Your task to perform on an android device: add a contact Image 0: 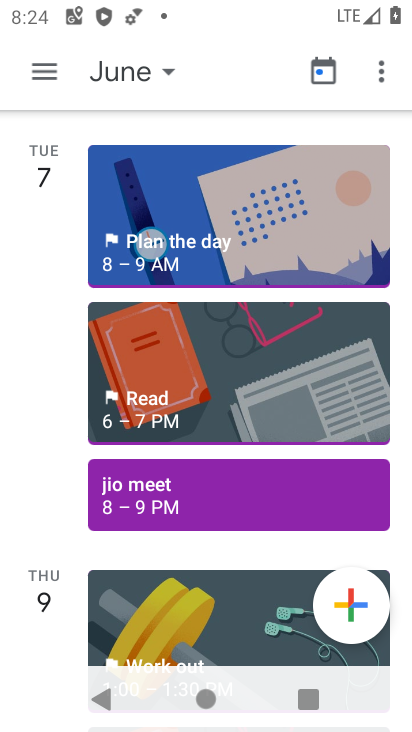
Step 0: press home button
Your task to perform on an android device: add a contact Image 1: 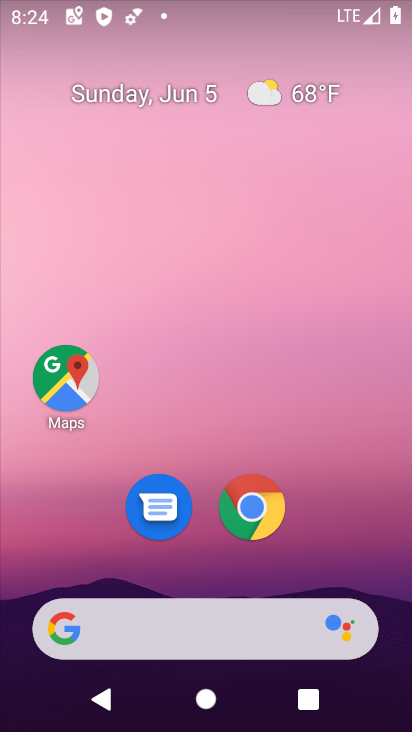
Step 1: drag from (210, 553) to (302, 182)
Your task to perform on an android device: add a contact Image 2: 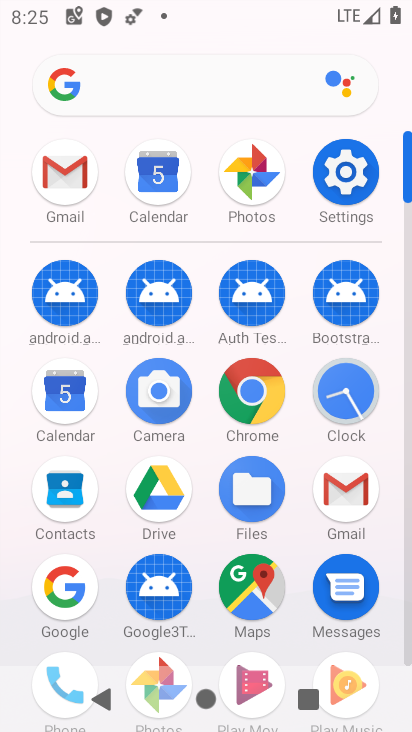
Step 2: click (63, 499)
Your task to perform on an android device: add a contact Image 3: 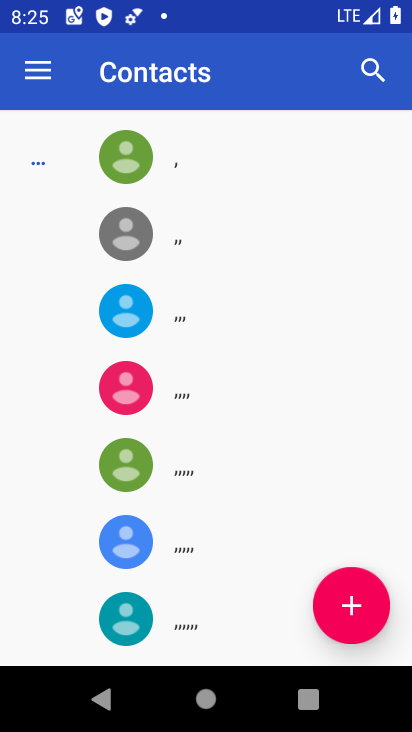
Step 3: click (341, 607)
Your task to perform on an android device: add a contact Image 4: 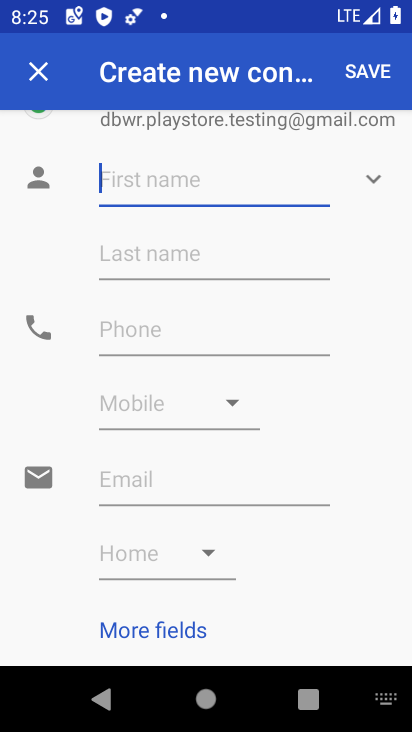
Step 4: type "cataluna"
Your task to perform on an android device: add a contact Image 5: 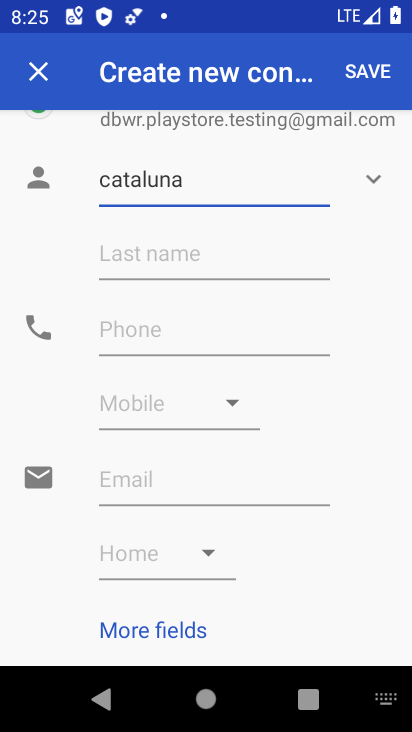
Step 5: click (383, 70)
Your task to perform on an android device: add a contact Image 6: 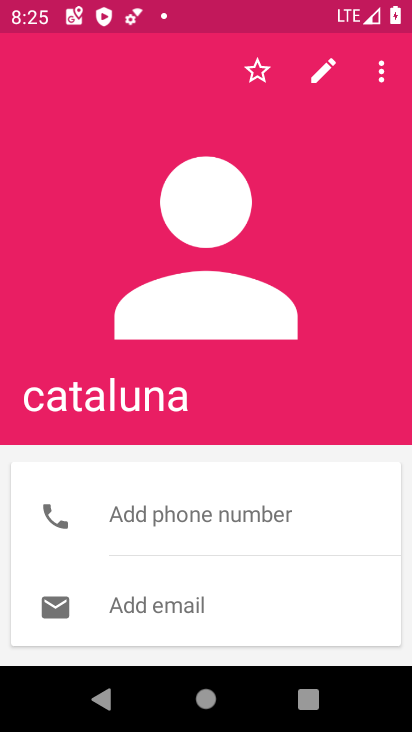
Step 6: task complete